Your task to perform on an android device: turn on the 12-hour format for clock Image 0: 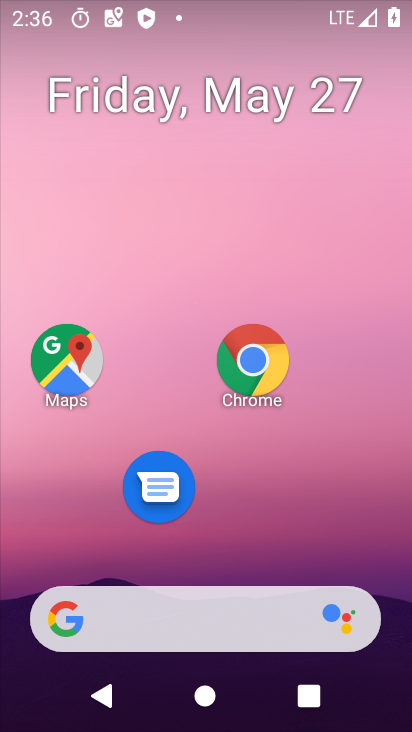
Step 0: drag from (288, 512) to (260, 82)
Your task to perform on an android device: turn on the 12-hour format for clock Image 1: 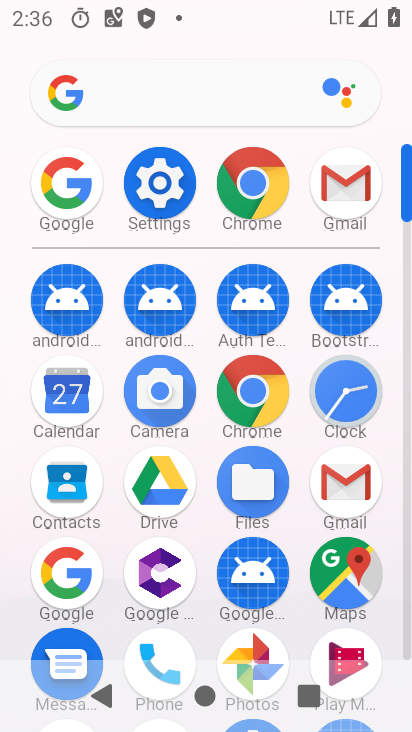
Step 1: click (347, 393)
Your task to perform on an android device: turn on the 12-hour format for clock Image 2: 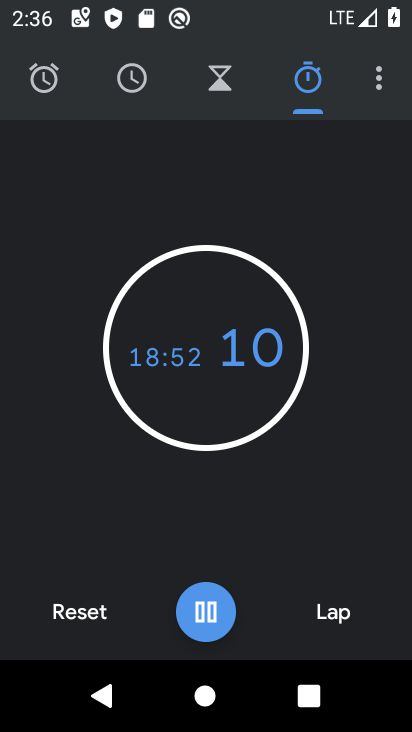
Step 2: click (369, 78)
Your task to perform on an android device: turn on the 12-hour format for clock Image 3: 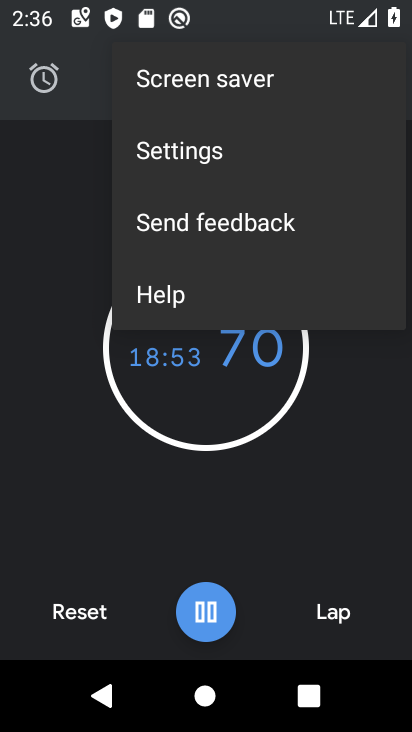
Step 3: click (181, 164)
Your task to perform on an android device: turn on the 12-hour format for clock Image 4: 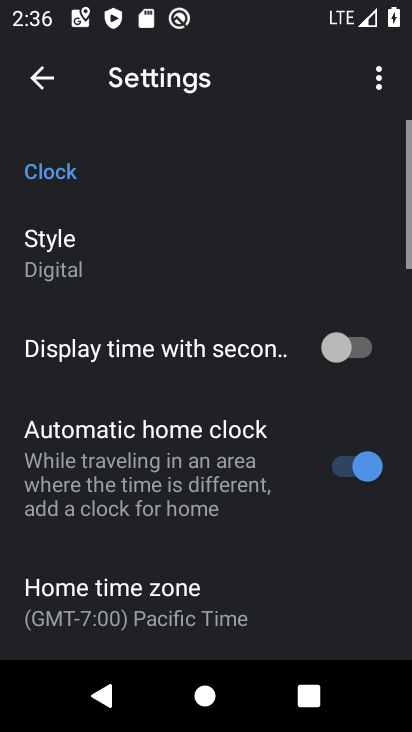
Step 4: drag from (171, 476) to (207, 132)
Your task to perform on an android device: turn on the 12-hour format for clock Image 5: 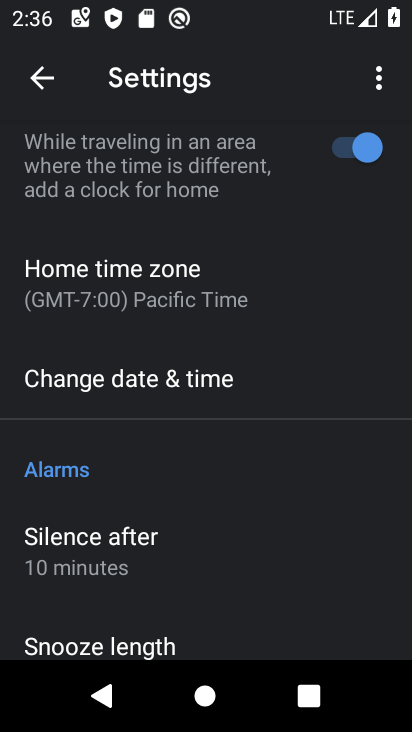
Step 5: click (152, 383)
Your task to perform on an android device: turn on the 12-hour format for clock Image 6: 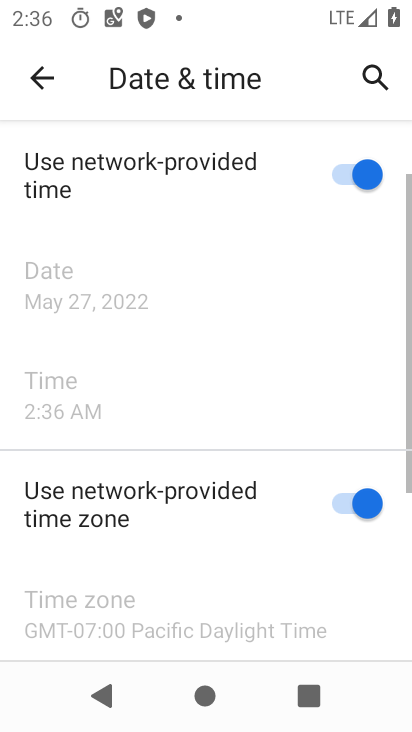
Step 6: drag from (244, 599) to (233, 77)
Your task to perform on an android device: turn on the 12-hour format for clock Image 7: 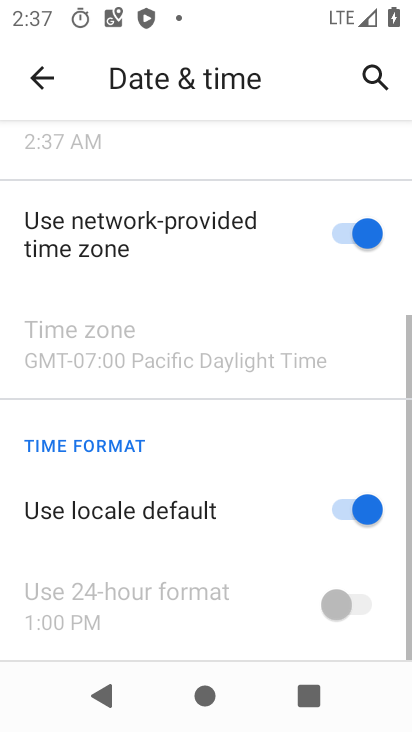
Step 7: click (351, 510)
Your task to perform on an android device: turn on the 12-hour format for clock Image 8: 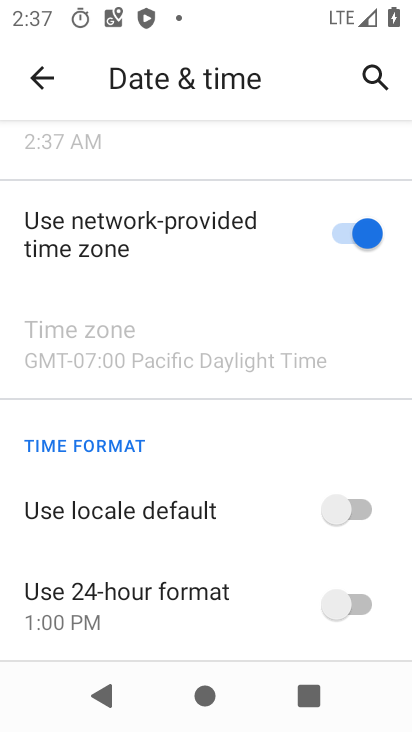
Step 8: click (338, 509)
Your task to perform on an android device: turn on the 12-hour format for clock Image 9: 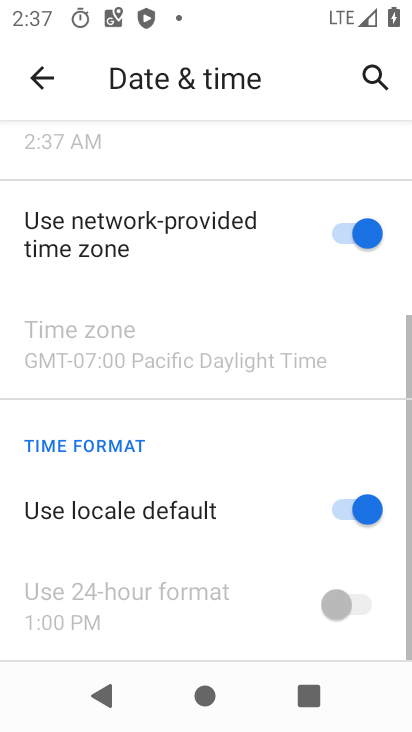
Step 9: task complete